Your task to perform on an android device: See recent photos Image 0: 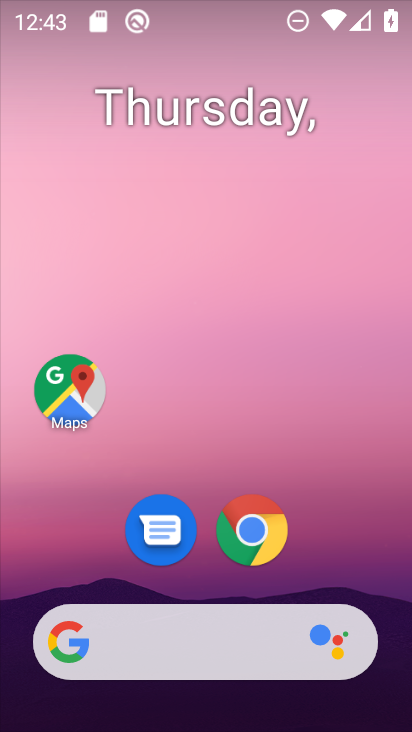
Step 0: drag from (165, 656) to (109, 10)
Your task to perform on an android device: See recent photos Image 1: 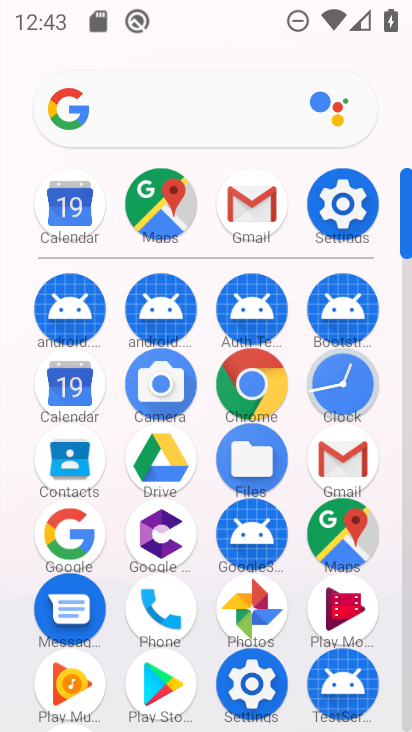
Step 1: click (249, 616)
Your task to perform on an android device: See recent photos Image 2: 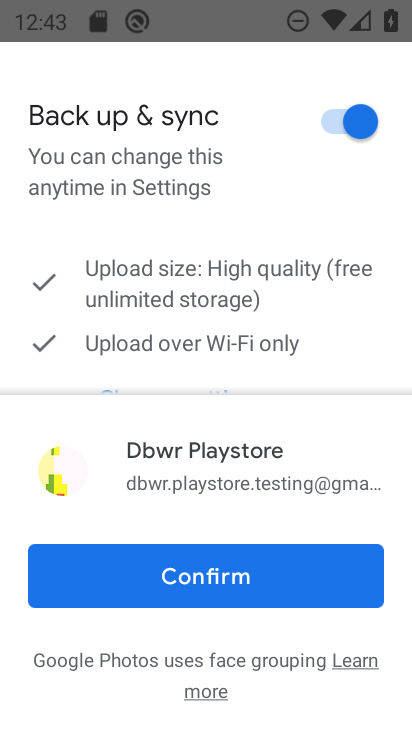
Step 2: click (204, 585)
Your task to perform on an android device: See recent photos Image 3: 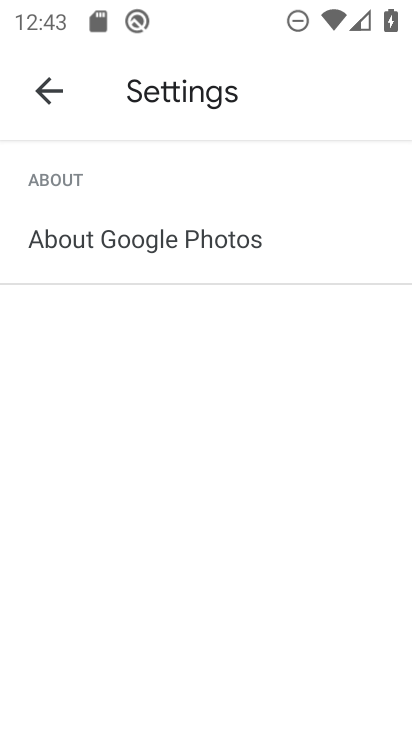
Step 3: click (53, 107)
Your task to perform on an android device: See recent photos Image 4: 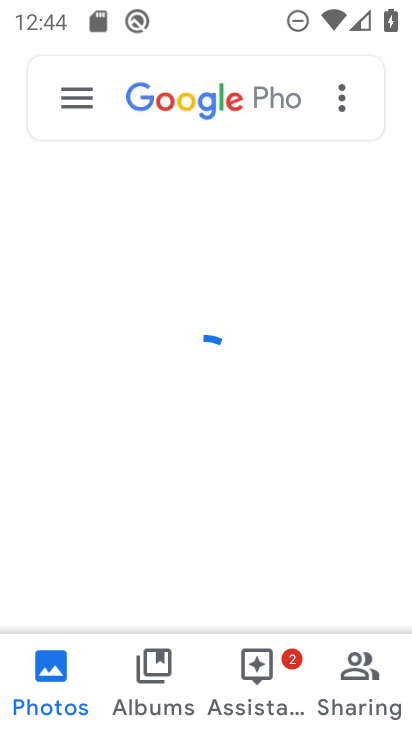
Step 4: click (40, 677)
Your task to perform on an android device: See recent photos Image 5: 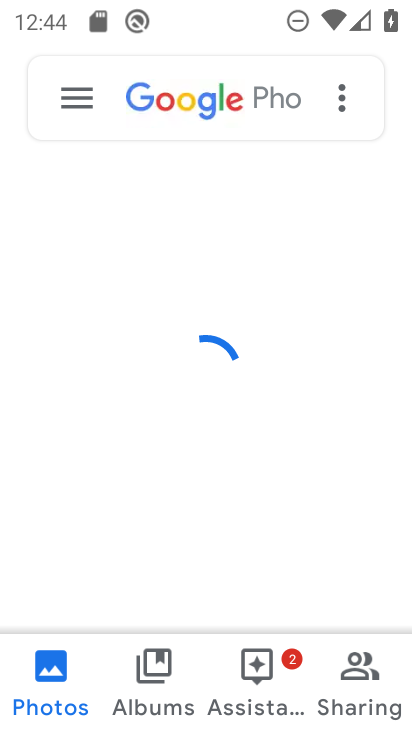
Step 5: task complete